Your task to perform on an android device: Search for Mexican restaurants on Maps Image 0: 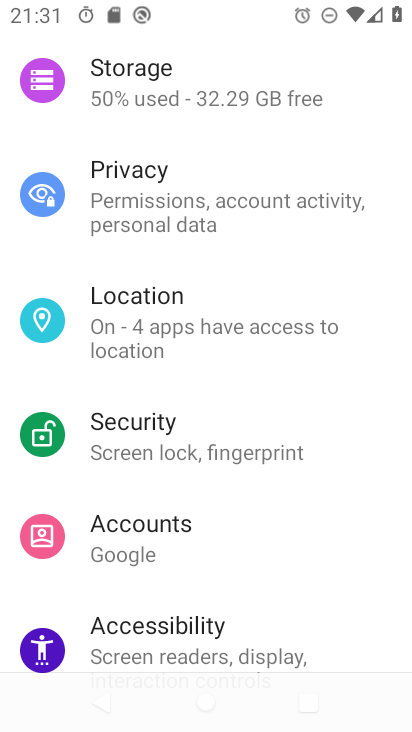
Step 0: press home button
Your task to perform on an android device: Search for Mexican restaurants on Maps Image 1: 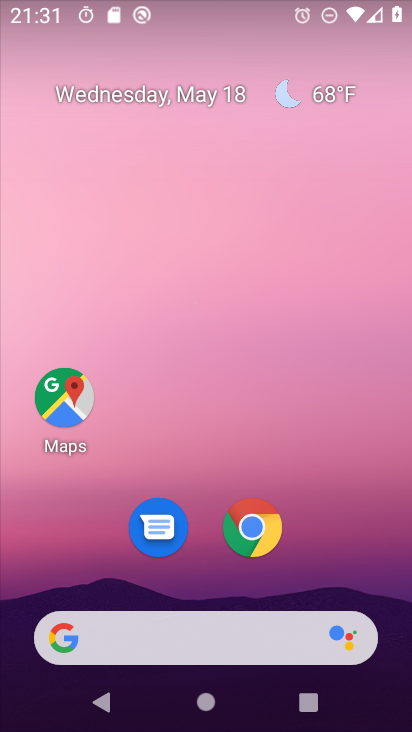
Step 1: click (47, 369)
Your task to perform on an android device: Search for Mexican restaurants on Maps Image 2: 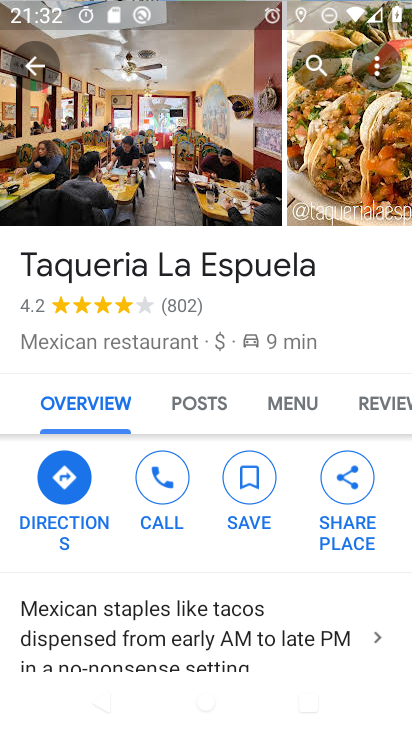
Step 2: press back button
Your task to perform on an android device: Search for Mexican restaurants on Maps Image 3: 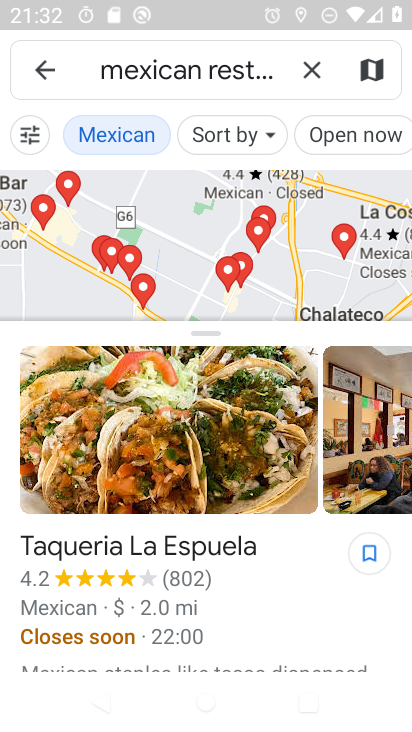
Step 3: click (296, 65)
Your task to perform on an android device: Search for Mexican restaurants on Maps Image 4: 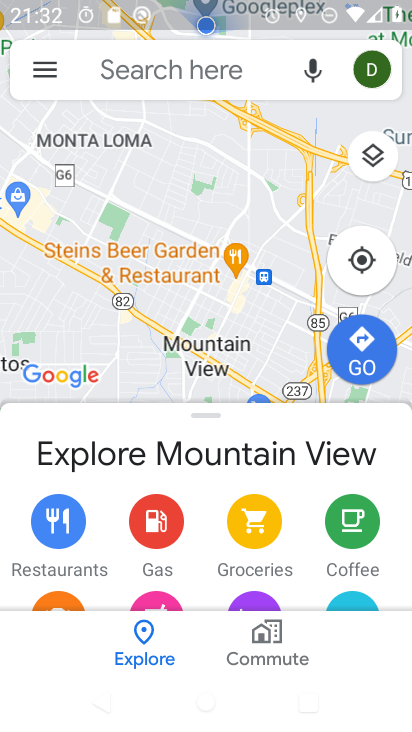
Step 4: click (179, 79)
Your task to perform on an android device: Search for Mexican restaurants on Maps Image 5: 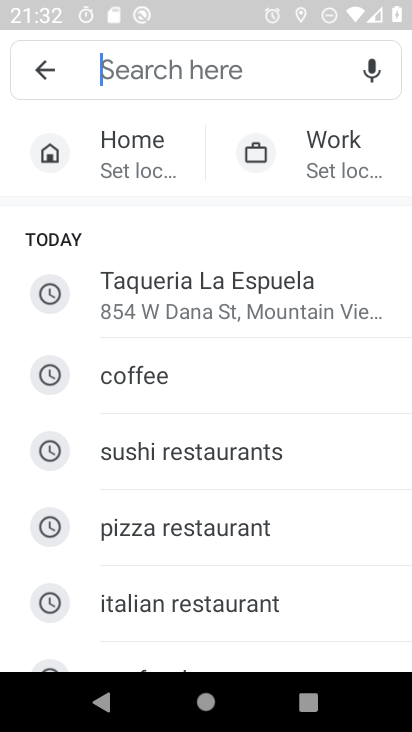
Step 5: type "Mexican restaurants"
Your task to perform on an android device: Search for Mexican restaurants on Maps Image 6: 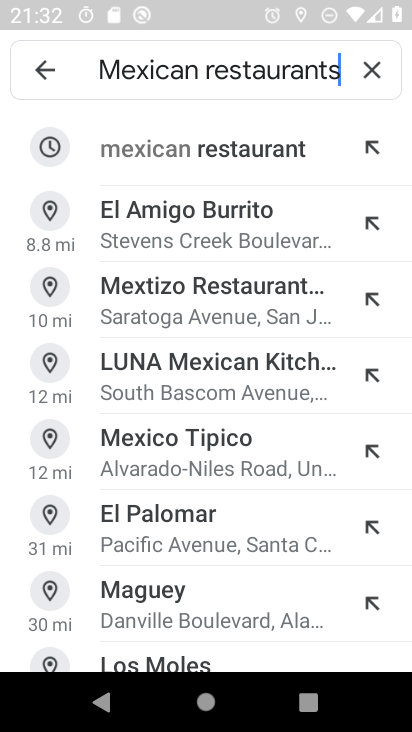
Step 6: click (199, 145)
Your task to perform on an android device: Search for Mexican restaurants on Maps Image 7: 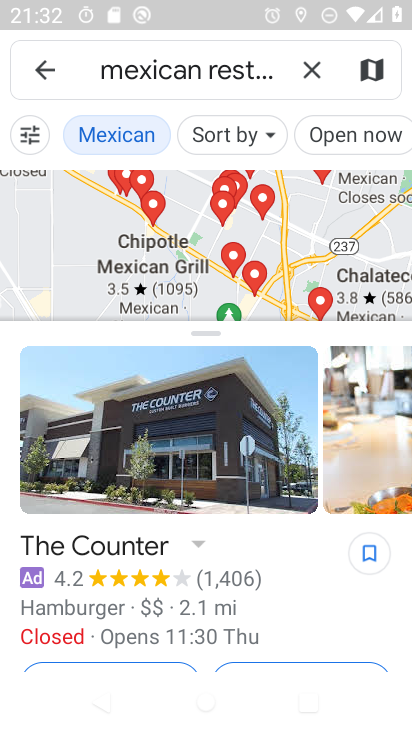
Step 7: task complete